Your task to perform on an android device: Go to Amazon Image 0: 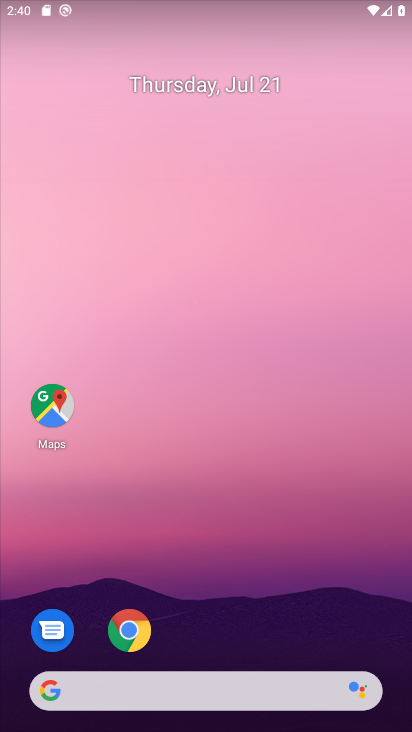
Step 0: drag from (241, 679) to (261, 33)
Your task to perform on an android device: Go to Amazon Image 1: 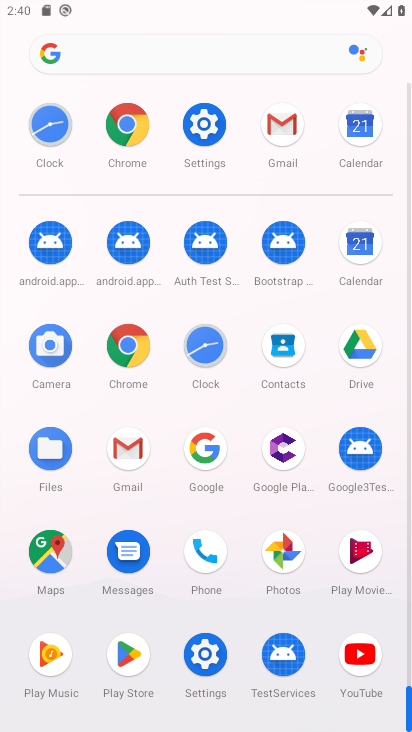
Step 1: drag from (183, 95) to (209, 11)
Your task to perform on an android device: Go to Amazon Image 2: 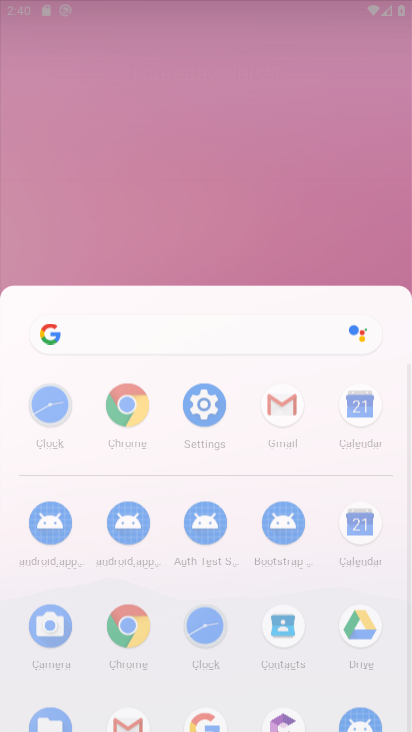
Step 2: click (180, 77)
Your task to perform on an android device: Go to Amazon Image 3: 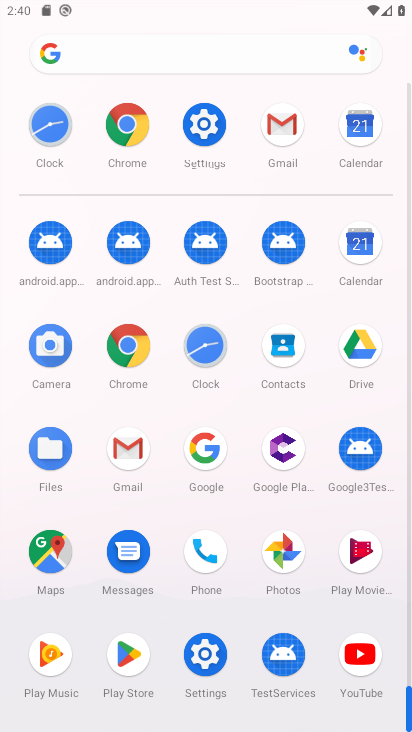
Step 3: click (162, 45)
Your task to perform on an android device: Go to Amazon Image 4: 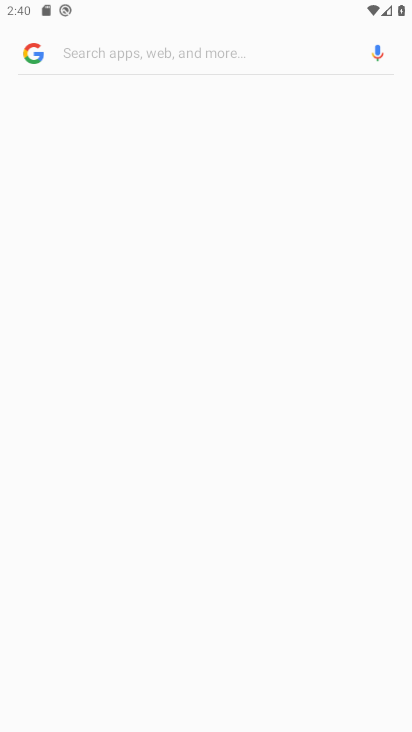
Step 4: click (112, 122)
Your task to perform on an android device: Go to Amazon Image 5: 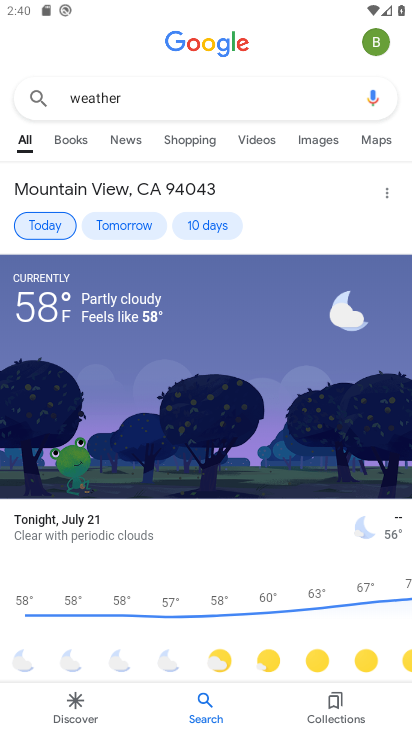
Step 5: press back button
Your task to perform on an android device: Go to Amazon Image 6: 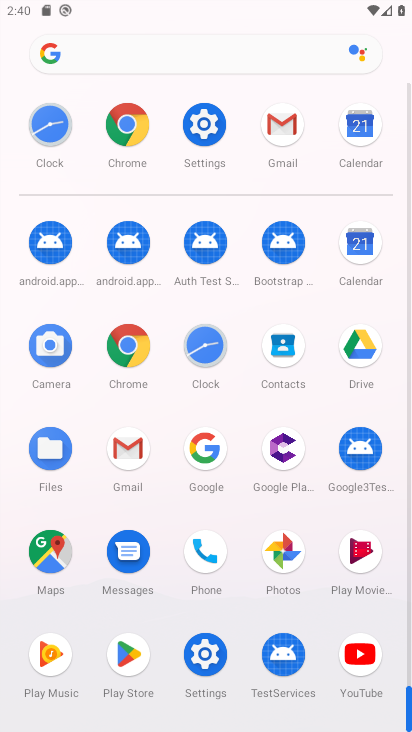
Step 6: click (129, 121)
Your task to perform on an android device: Go to Amazon Image 7: 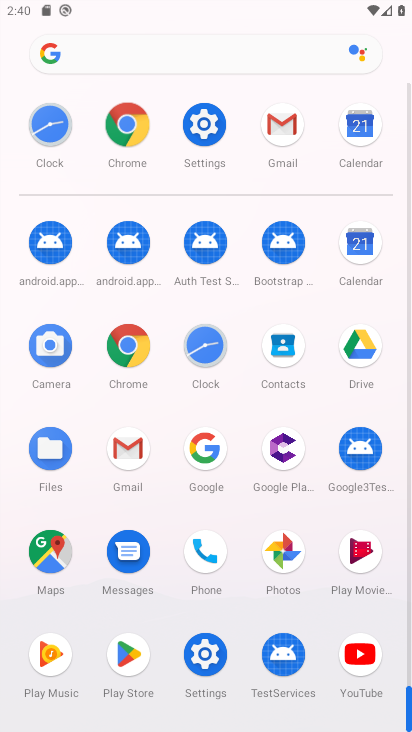
Step 7: click (129, 122)
Your task to perform on an android device: Go to Amazon Image 8: 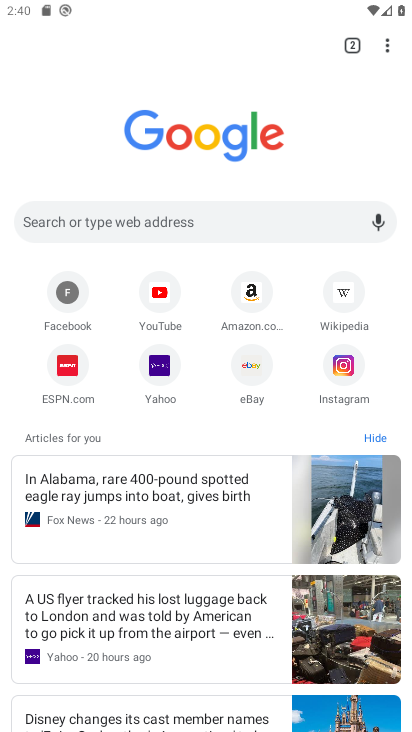
Step 8: click (248, 306)
Your task to perform on an android device: Go to Amazon Image 9: 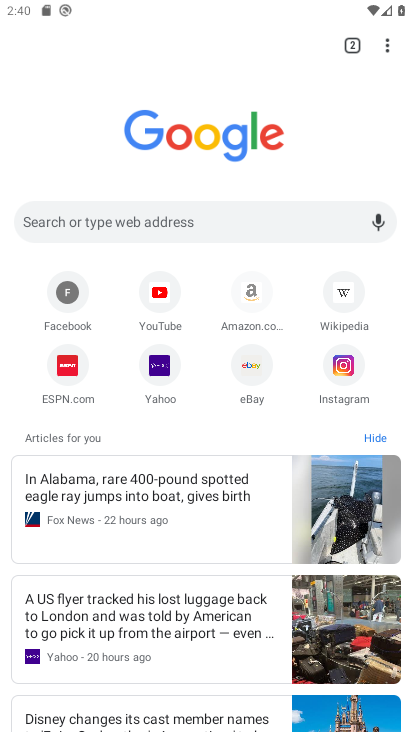
Step 9: click (252, 306)
Your task to perform on an android device: Go to Amazon Image 10: 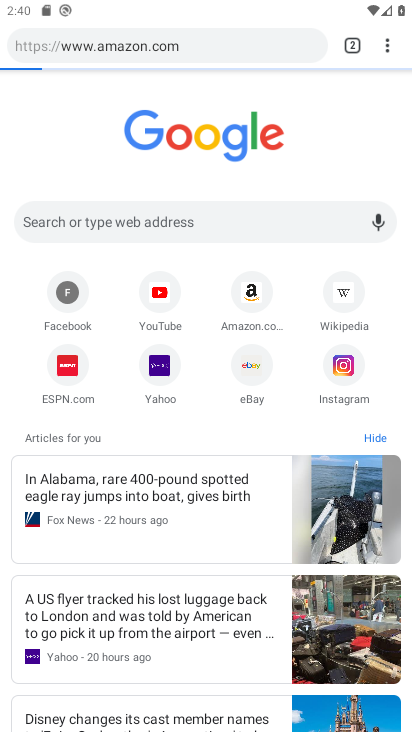
Step 10: click (254, 307)
Your task to perform on an android device: Go to Amazon Image 11: 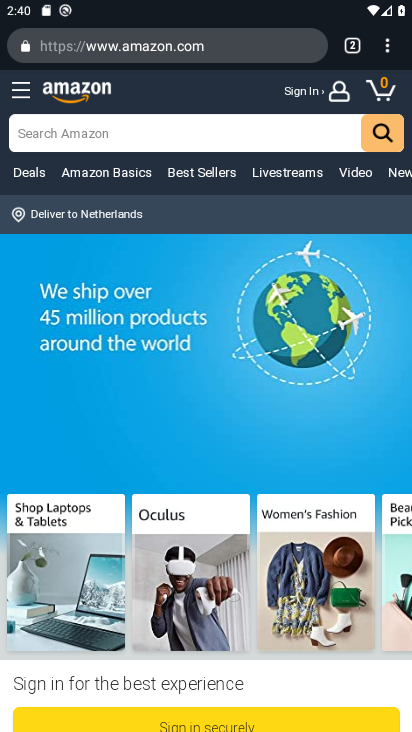
Step 11: task complete